Your task to perform on an android device: turn off javascript in the chrome app Image 0: 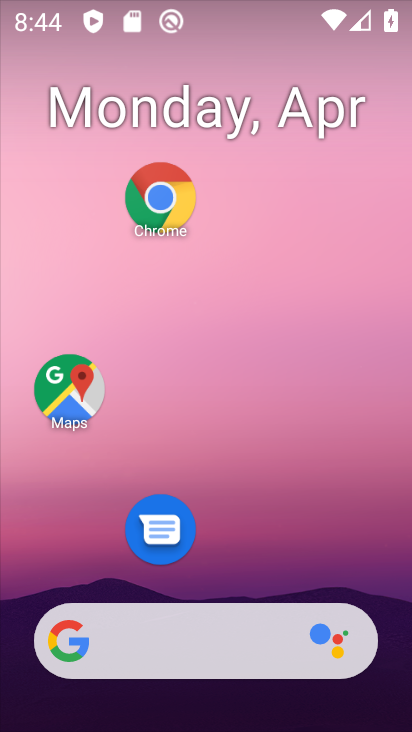
Step 0: click (175, 190)
Your task to perform on an android device: turn off javascript in the chrome app Image 1: 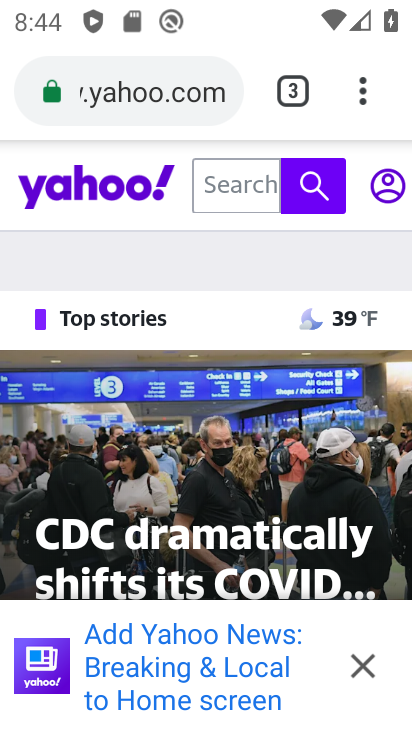
Step 1: click (353, 83)
Your task to perform on an android device: turn off javascript in the chrome app Image 2: 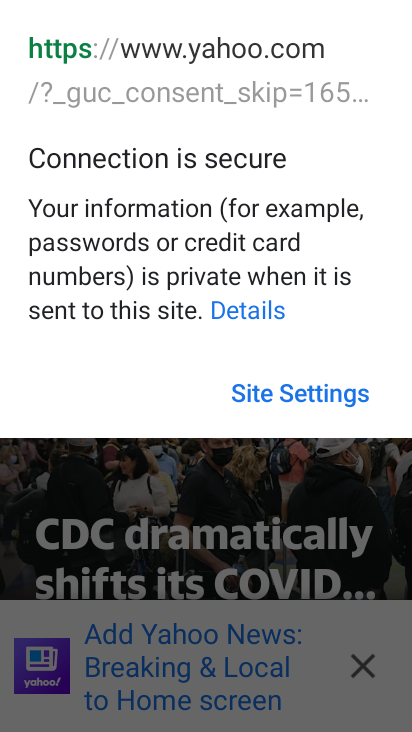
Step 2: click (173, 532)
Your task to perform on an android device: turn off javascript in the chrome app Image 3: 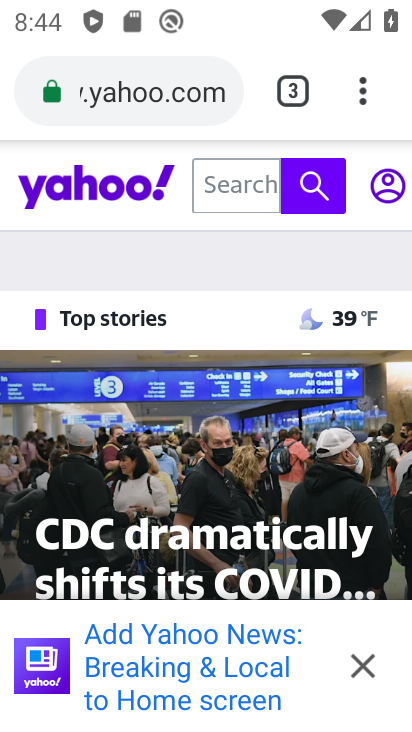
Step 3: drag from (357, 90) to (115, 545)
Your task to perform on an android device: turn off javascript in the chrome app Image 4: 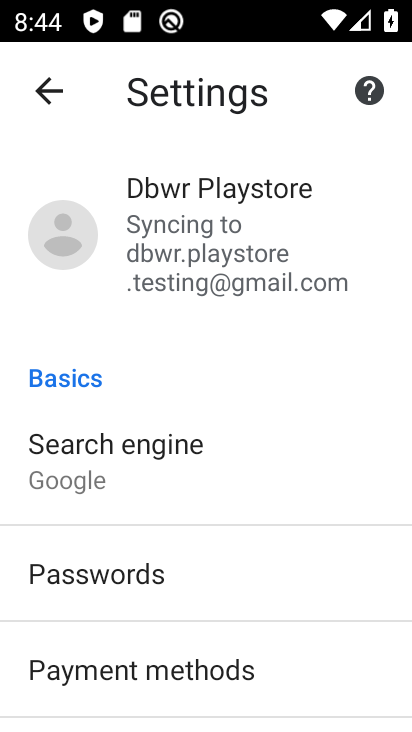
Step 4: drag from (129, 624) to (203, 159)
Your task to perform on an android device: turn off javascript in the chrome app Image 5: 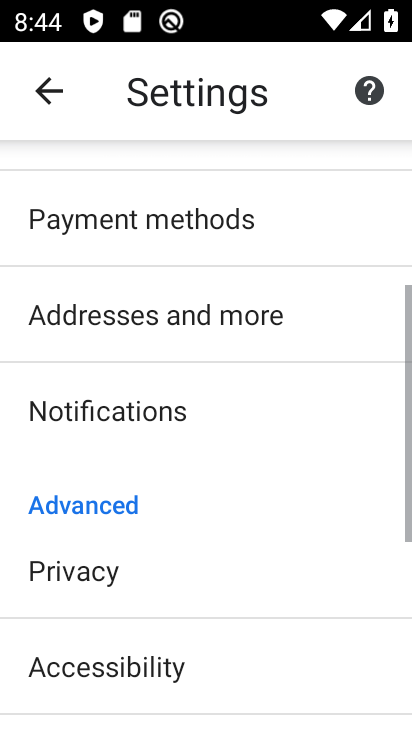
Step 5: drag from (167, 663) to (267, 187)
Your task to perform on an android device: turn off javascript in the chrome app Image 6: 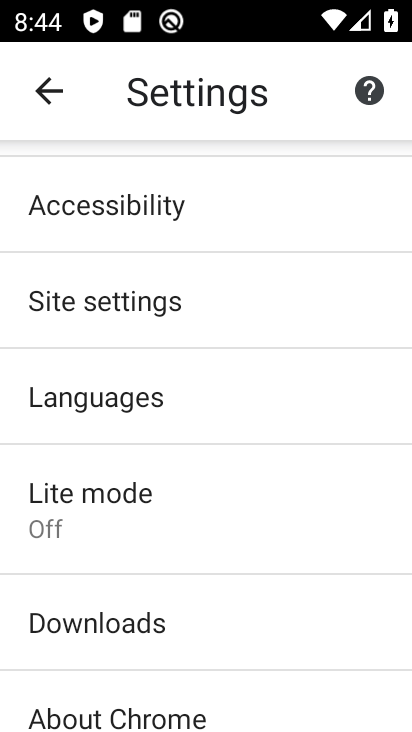
Step 6: click (96, 307)
Your task to perform on an android device: turn off javascript in the chrome app Image 7: 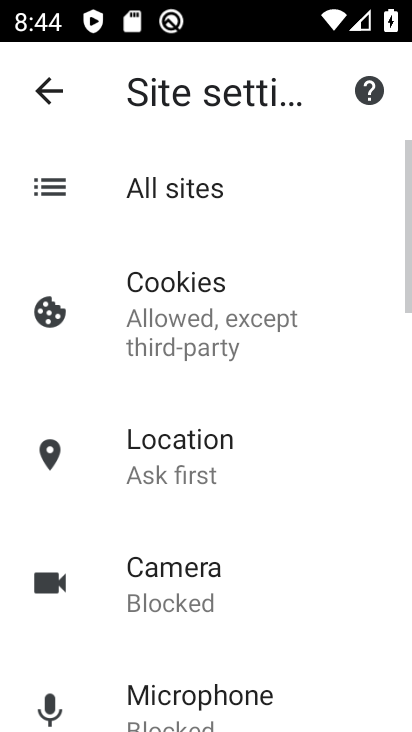
Step 7: drag from (185, 625) to (270, 116)
Your task to perform on an android device: turn off javascript in the chrome app Image 8: 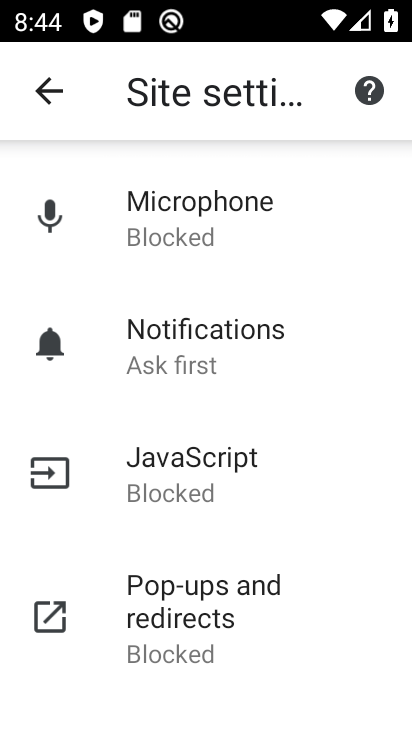
Step 8: drag from (190, 602) to (217, 417)
Your task to perform on an android device: turn off javascript in the chrome app Image 9: 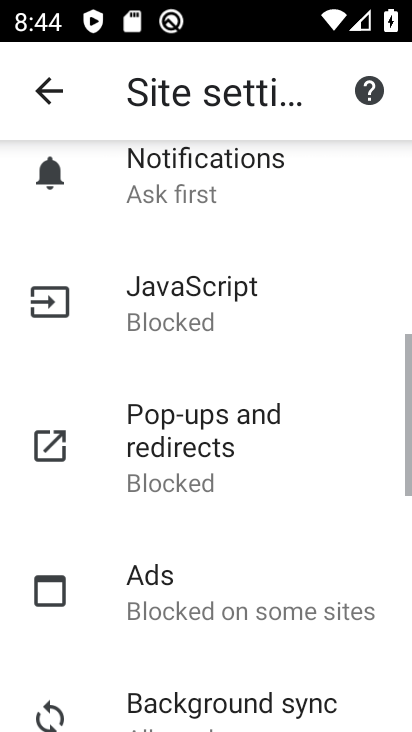
Step 9: click (173, 291)
Your task to perform on an android device: turn off javascript in the chrome app Image 10: 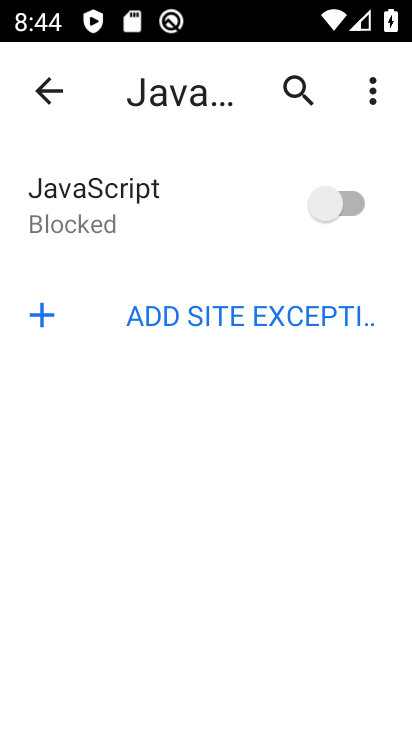
Step 10: task complete